Your task to perform on an android device: open app "Messages" Image 0: 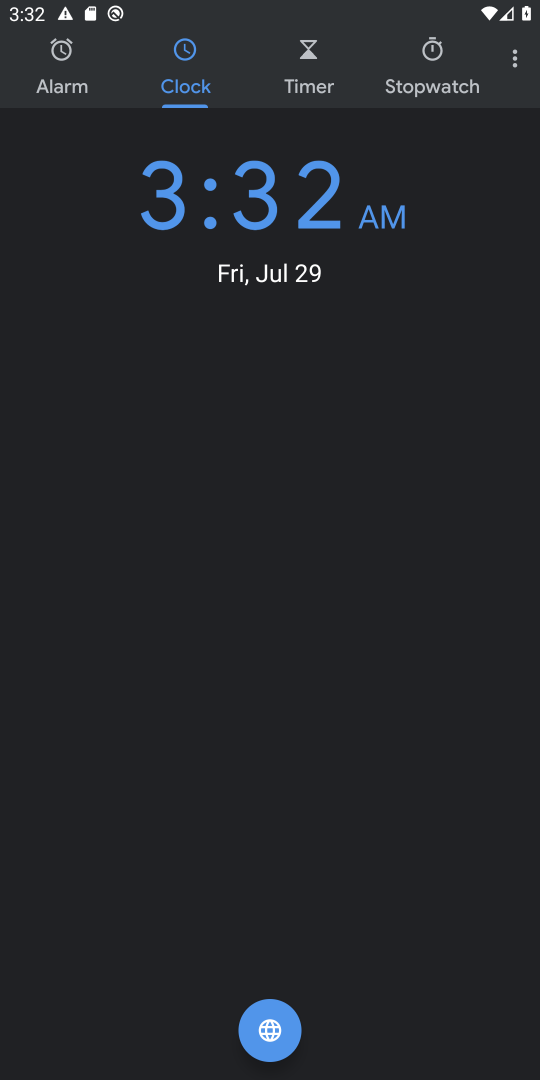
Step 0: press home button
Your task to perform on an android device: open app "Messages" Image 1: 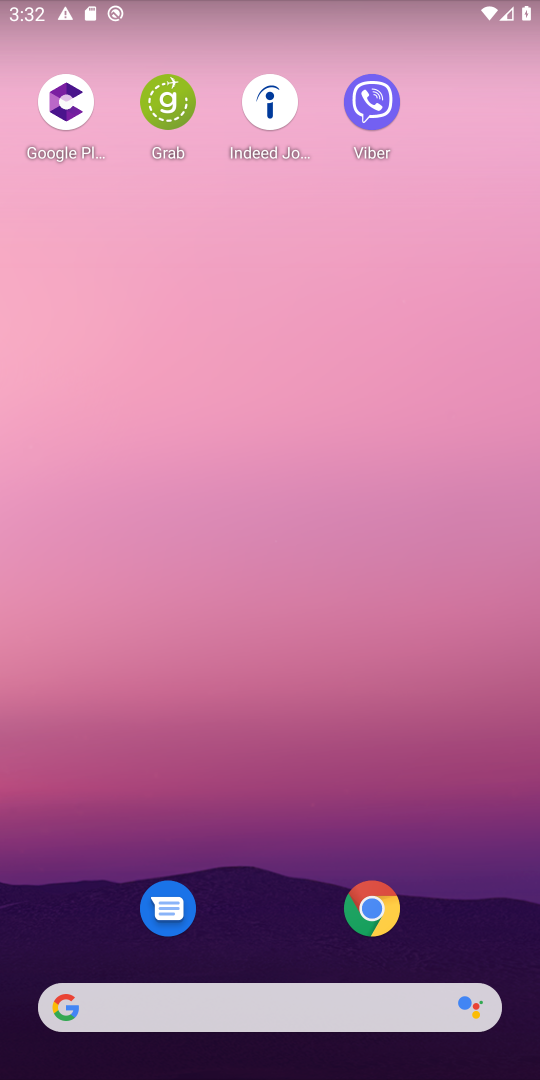
Step 1: click (164, 902)
Your task to perform on an android device: open app "Messages" Image 2: 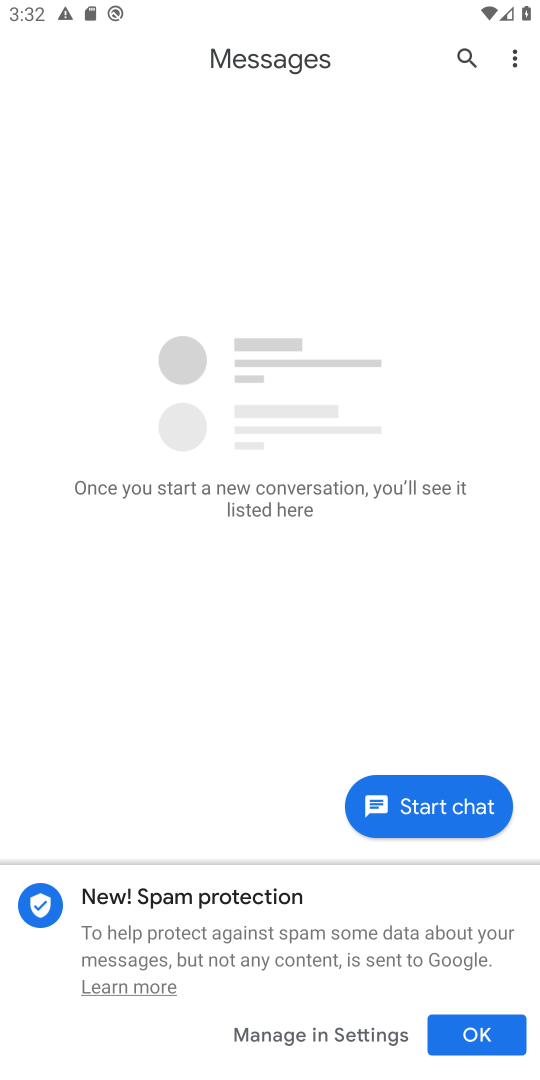
Step 2: task complete